Your task to perform on an android device: Go to display settings Image 0: 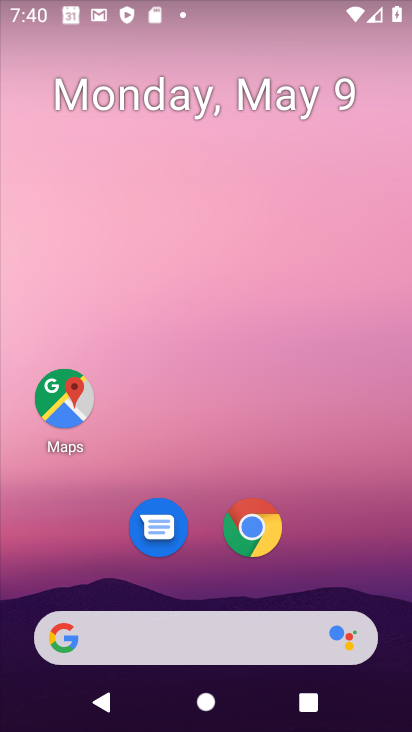
Step 0: drag from (229, 613) to (238, 327)
Your task to perform on an android device: Go to display settings Image 1: 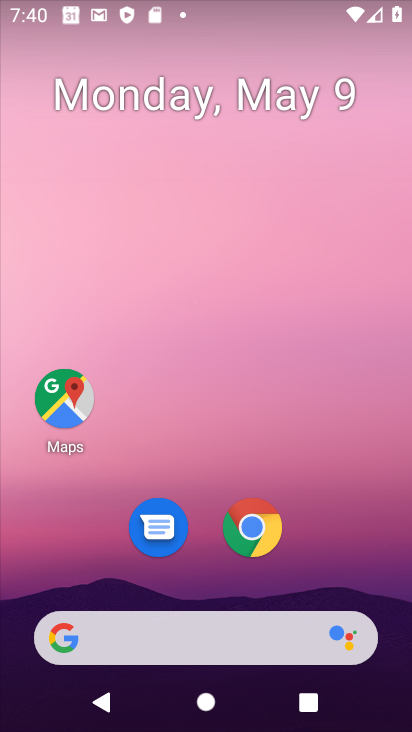
Step 1: drag from (246, 643) to (293, 229)
Your task to perform on an android device: Go to display settings Image 2: 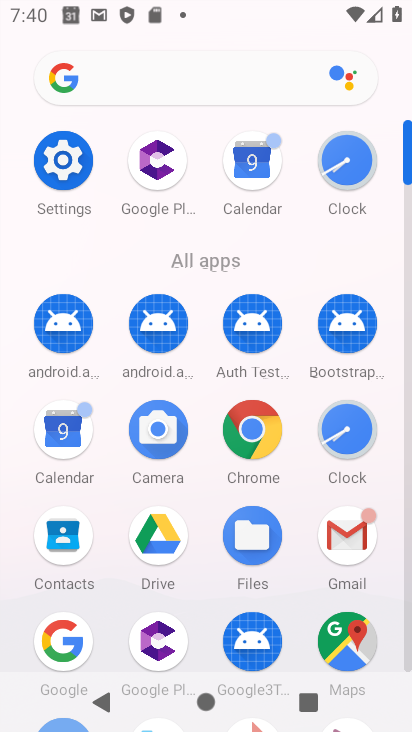
Step 2: drag from (203, 567) to (260, 264)
Your task to perform on an android device: Go to display settings Image 3: 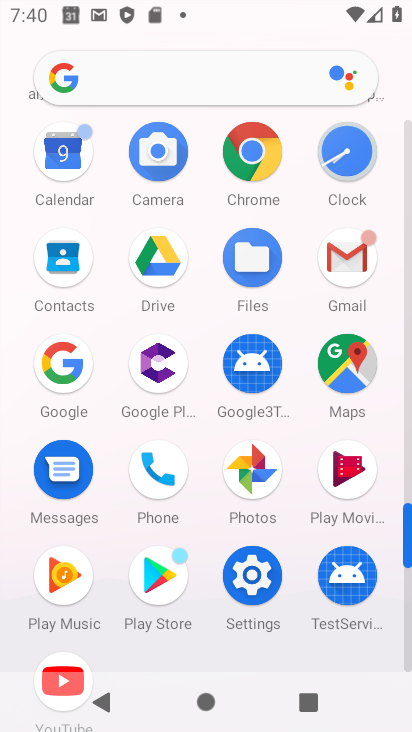
Step 3: drag from (186, 525) to (270, 289)
Your task to perform on an android device: Go to display settings Image 4: 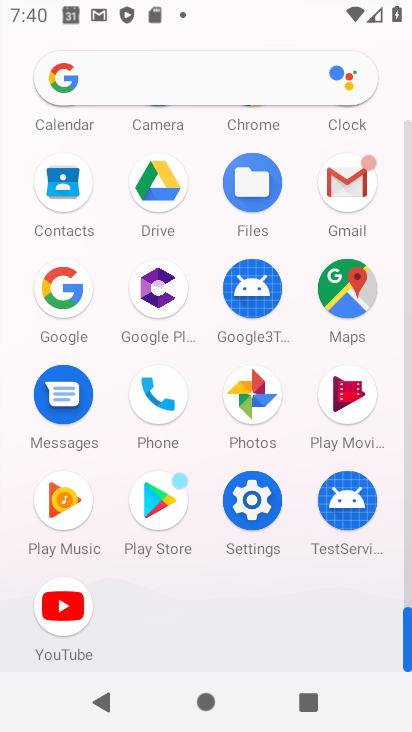
Step 4: click (248, 520)
Your task to perform on an android device: Go to display settings Image 5: 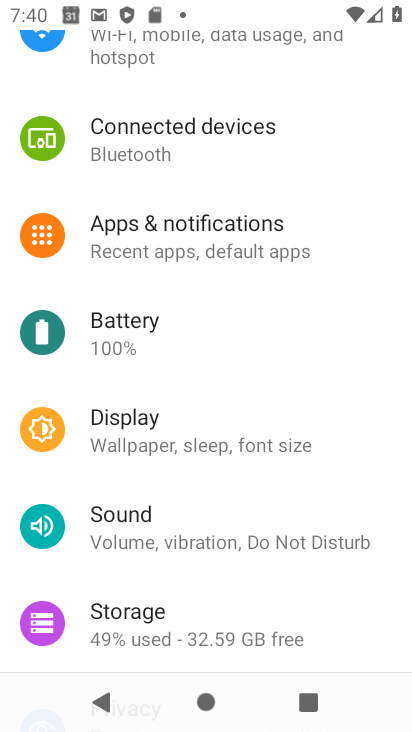
Step 5: click (172, 442)
Your task to perform on an android device: Go to display settings Image 6: 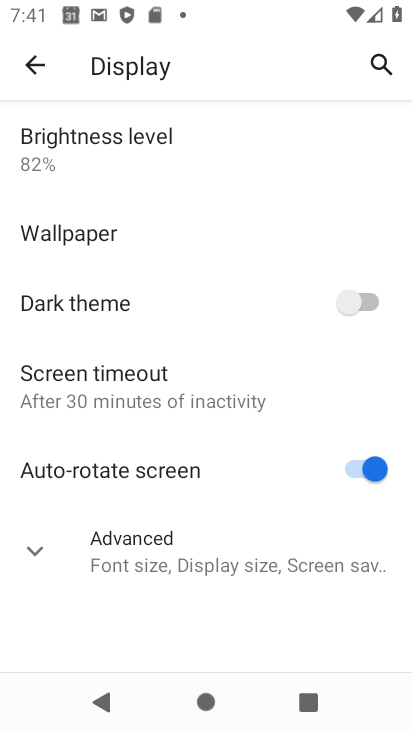
Step 6: click (174, 548)
Your task to perform on an android device: Go to display settings Image 7: 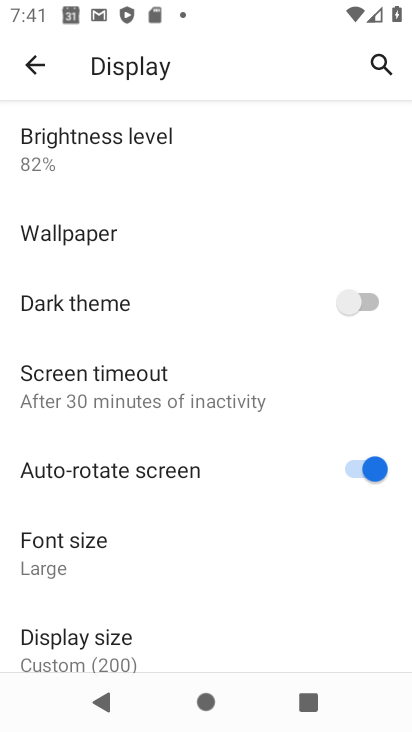
Step 7: task complete